Your task to perform on an android device: open app "Nova Launcher" (install if not already installed) Image 0: 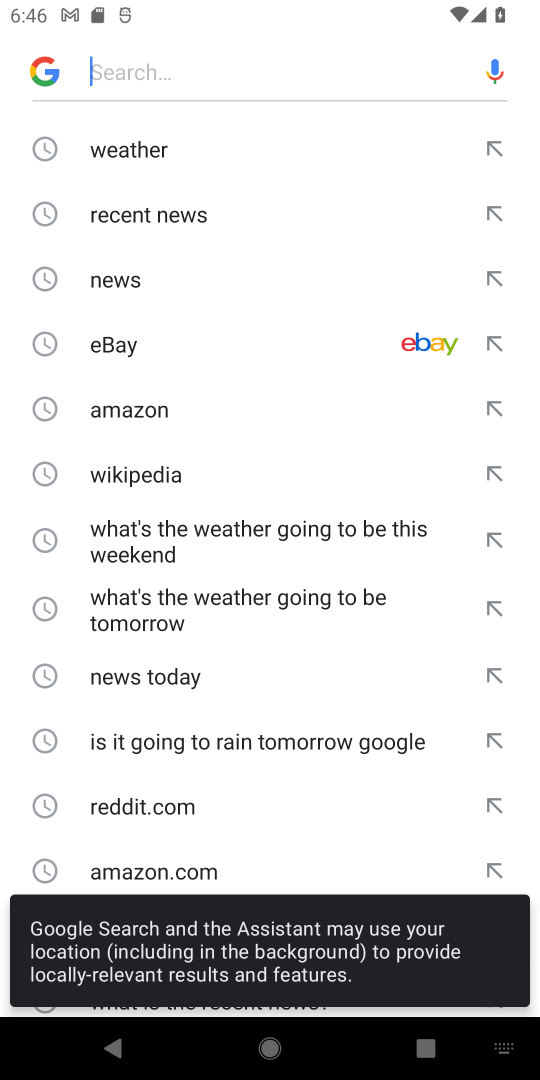
Step 0: press home button
Your task to perform on an android device: open app "Nova Launcher" (install if not already installed) Image 1: 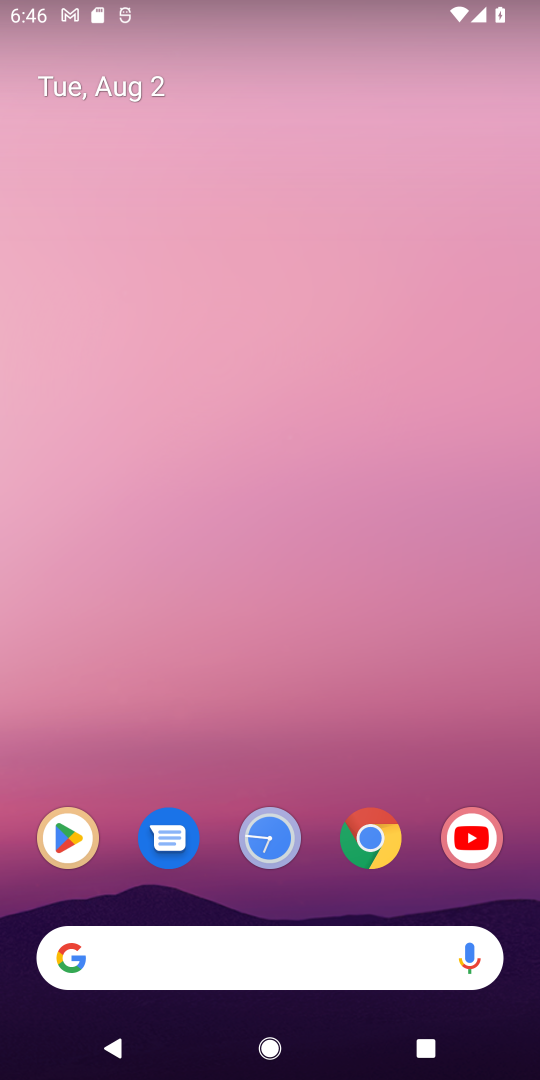
Step 1: click (84, 831)
Your task to perform on an android device: open app "Nova Launcher" (install if not already installed) Image 2: 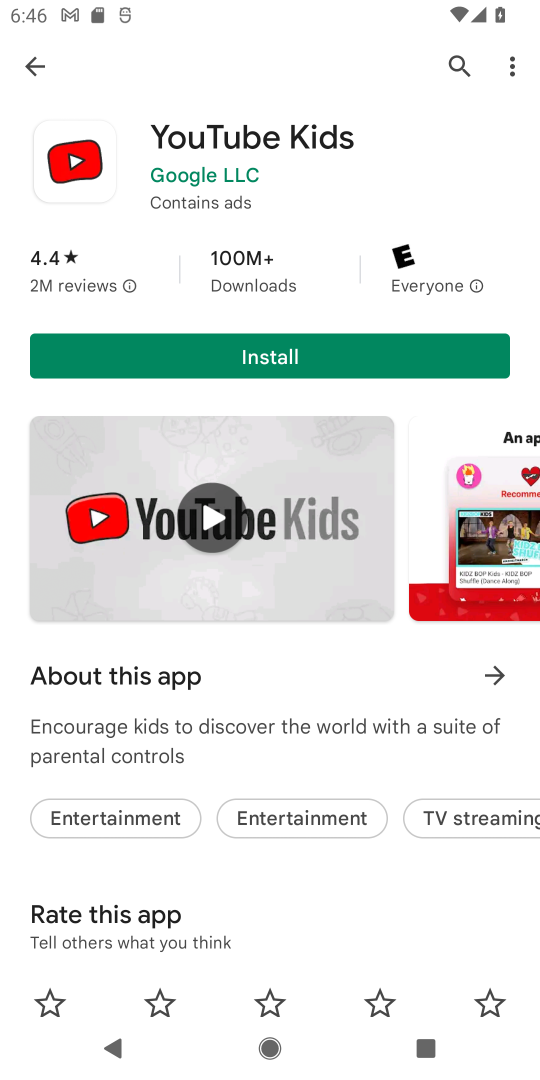
Step 2: click (454, 74)
Your task to perform on an android device: open app "Nova Launcher" (install if not already installed) Image 3: 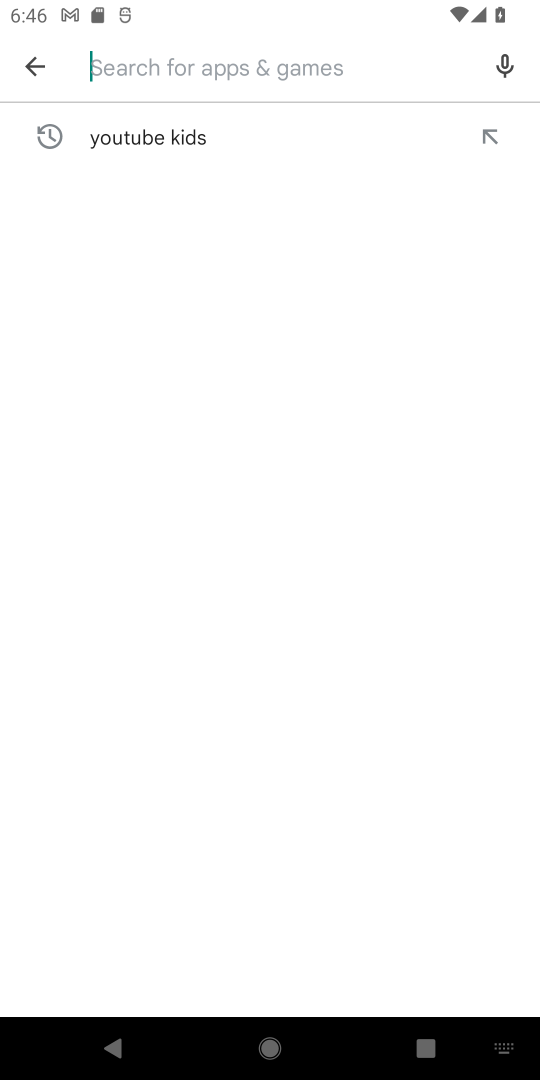
Step 3: type "nova launcher"
Your task to perform on an android device: open app "Nova Launcher" (install if not already installed) Image 4: 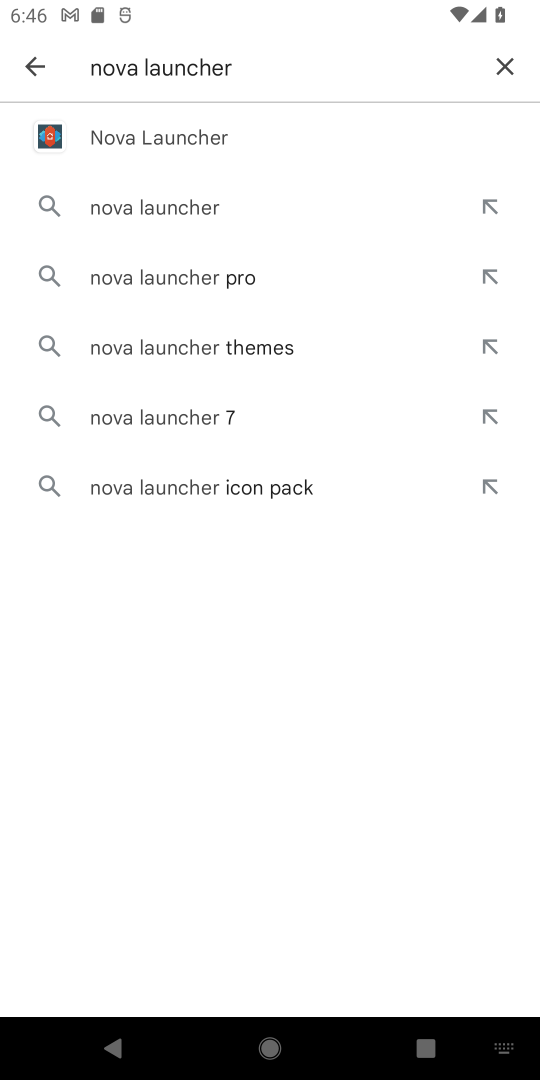
Step 4: click (132, 117)
Your task to perform on an android device: open app "Nova Launcher" (install if not already installed) Image 5: 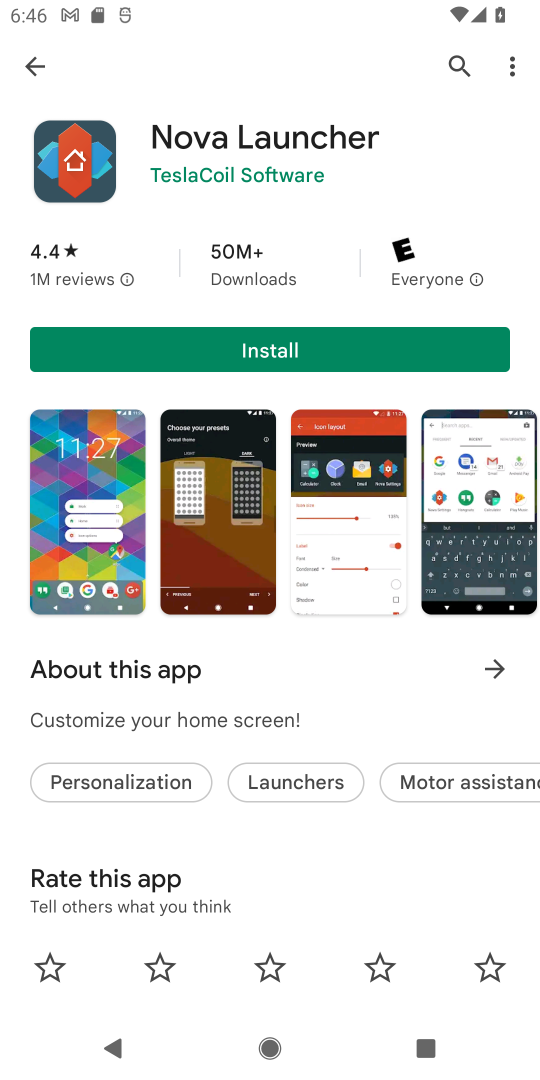
Step 5: click (186, 339)
Your task to perform on an android device: open app "Nova Launcher" (install if not already installed) Image 6: 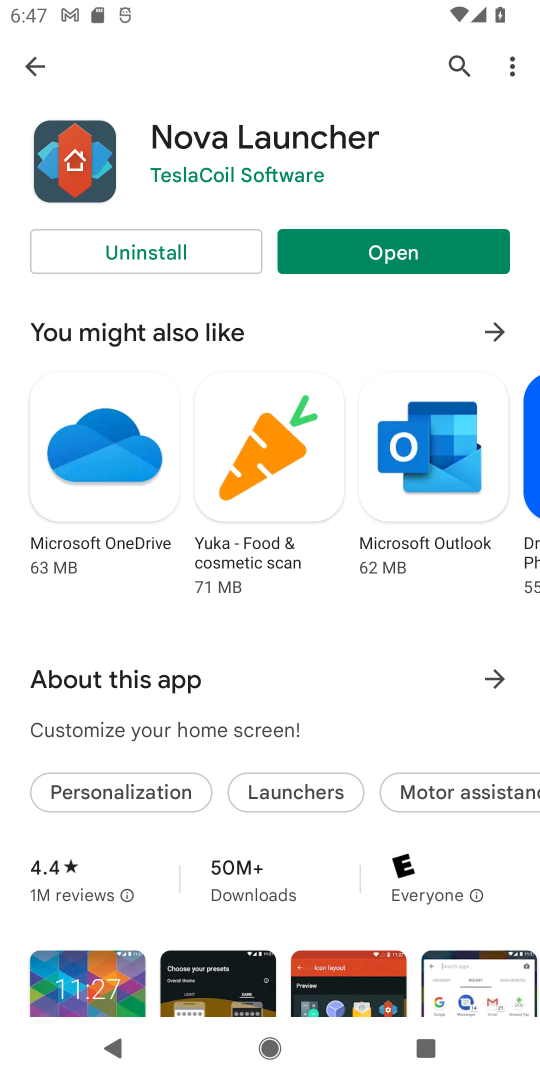
Step 6: click (450, 244)
Your task to perform on an android device: open app "Nova Launcher" (install if not already installed) Image 7: 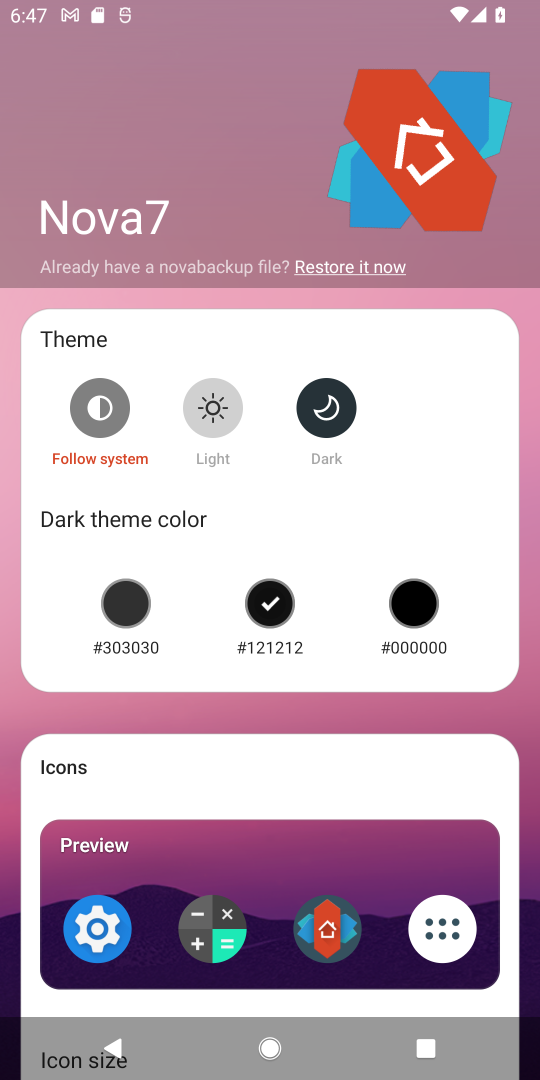
Step 7: task complete